Your task to perform on an android device: turn on sleep mode Image 0: 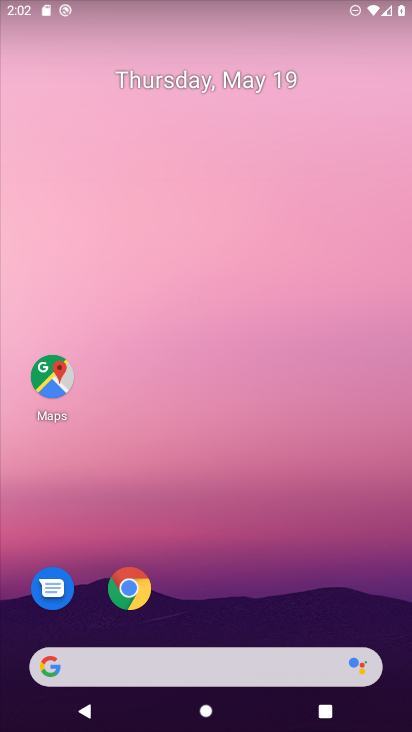
Step 0: drag from (294, 638) to (315, 14)
Your task to perform on an android device: turn on sleep mode Image 1: 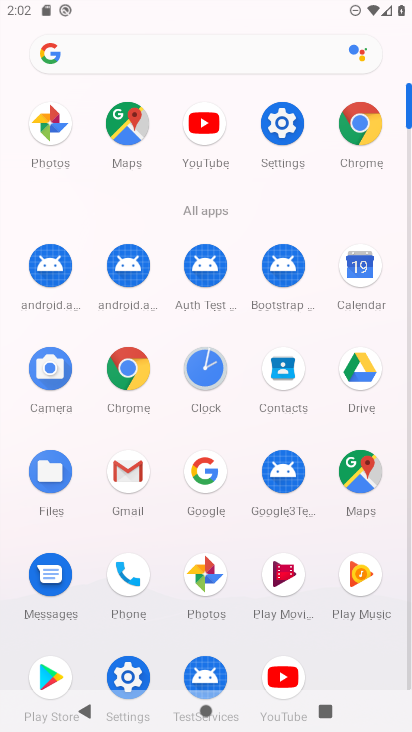
Step 1: click (281, 127)
Your task to perform on an android device: turn on sleep mode Image 2: 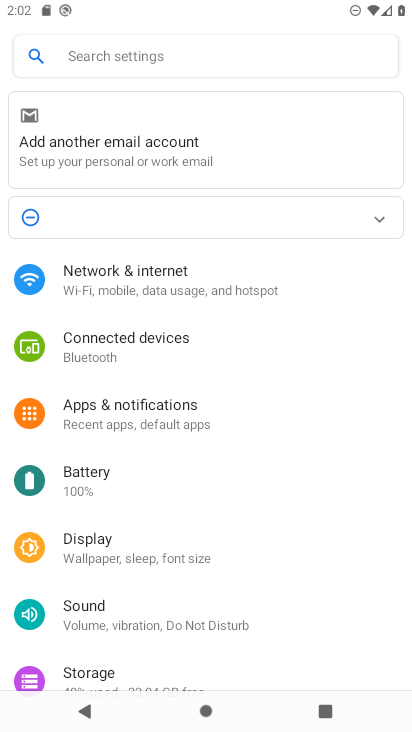
Step 2: click (80, 542)
Your task to perform on an android device: turn on sleep mode Image 3: 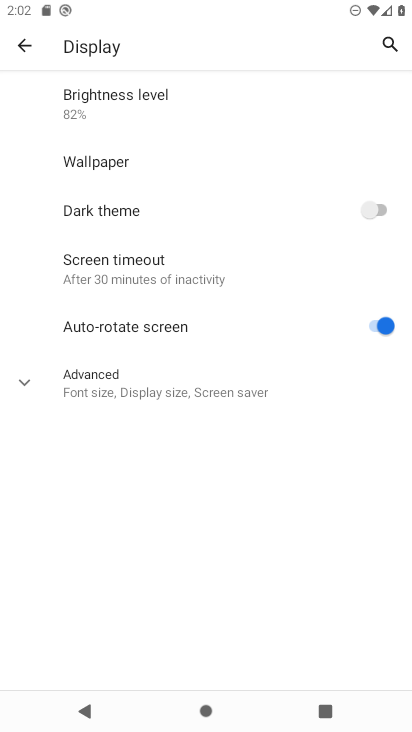
Step 3: click (19, 379)
Your task to perform on an android device: turn on sleep mode Image 4: 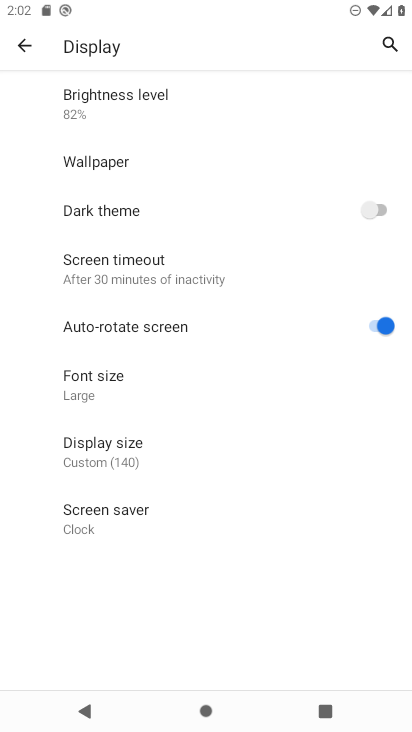
Step 4: task complete